Your task to perform on an android device: Open Youtube and go to the subscriptions tab Image 0: 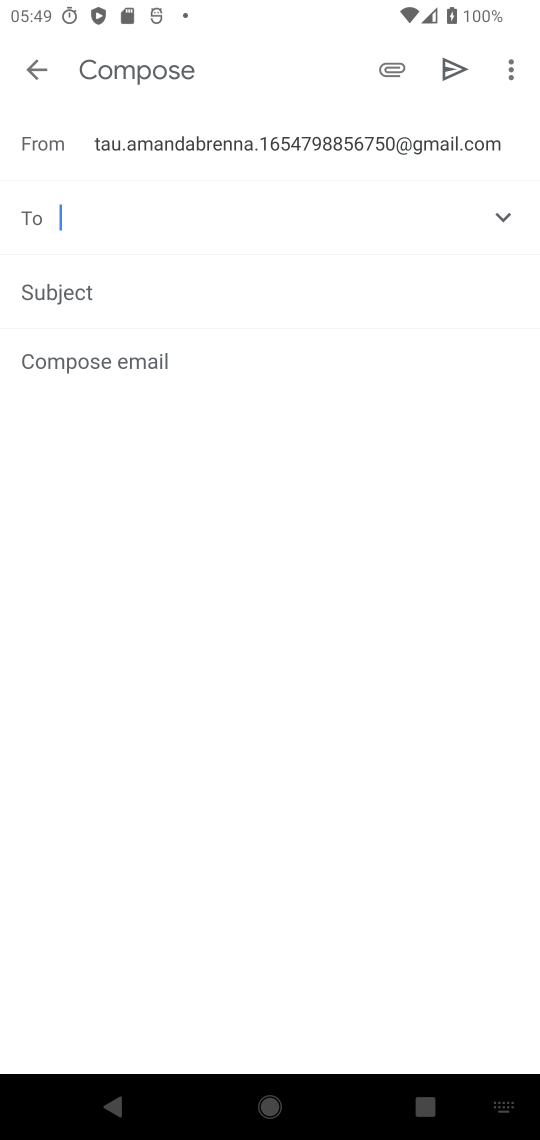
Step 0: press home button
Your task to perform on an android device: Open Youtube and go to the subscriptions tab Image 1: 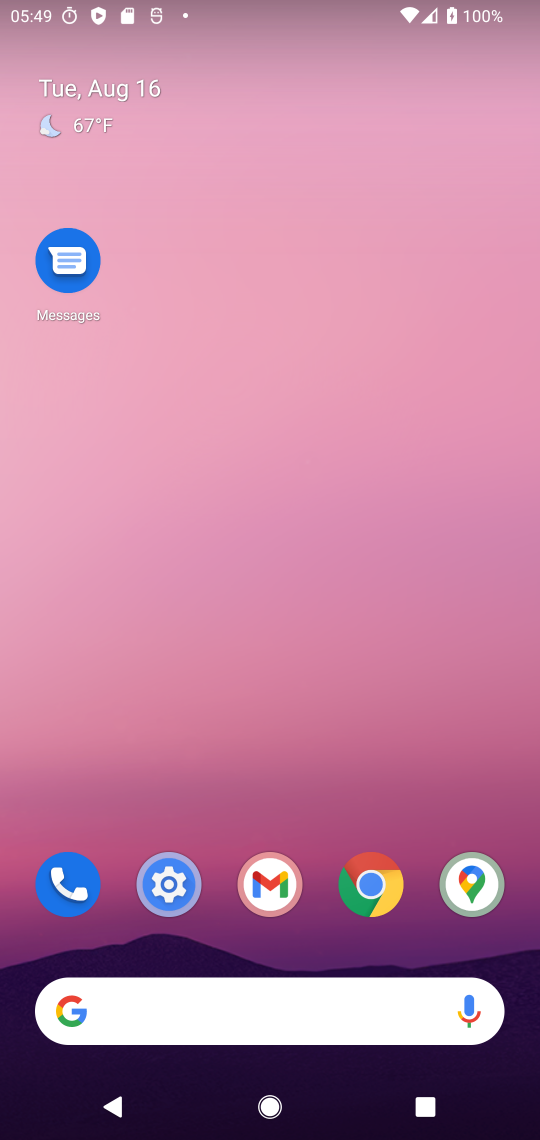
Step 1: drag from (55, 1060) to (290, 434)
Your task to perform on an android device: Open Youtube and go to the subscriptions tab Image 2: 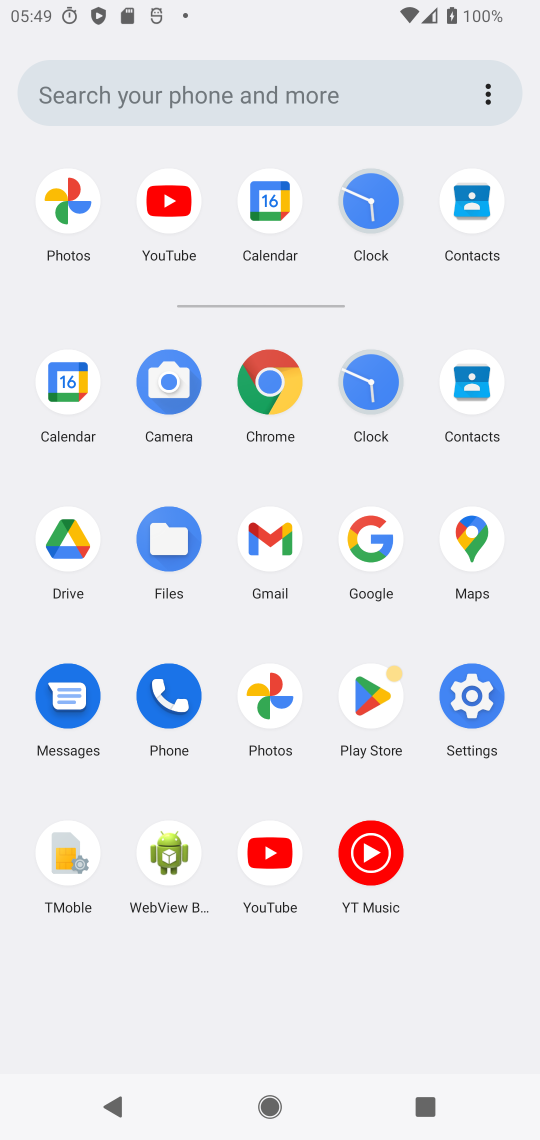
Step 2: click (259, 852)
Your task to perform on an android device: Open Youtube and go to the subscriptions tab Image 3: 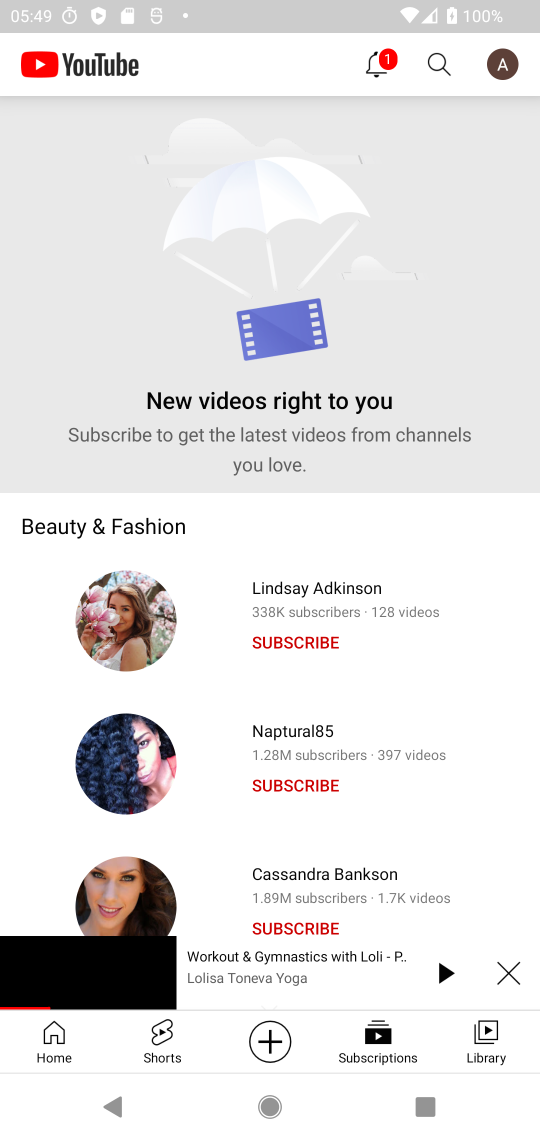
Step 3: click (358, 1044)
Your task to perform on an android device: Open Youtube and go to the subscriptions tab Image 4: 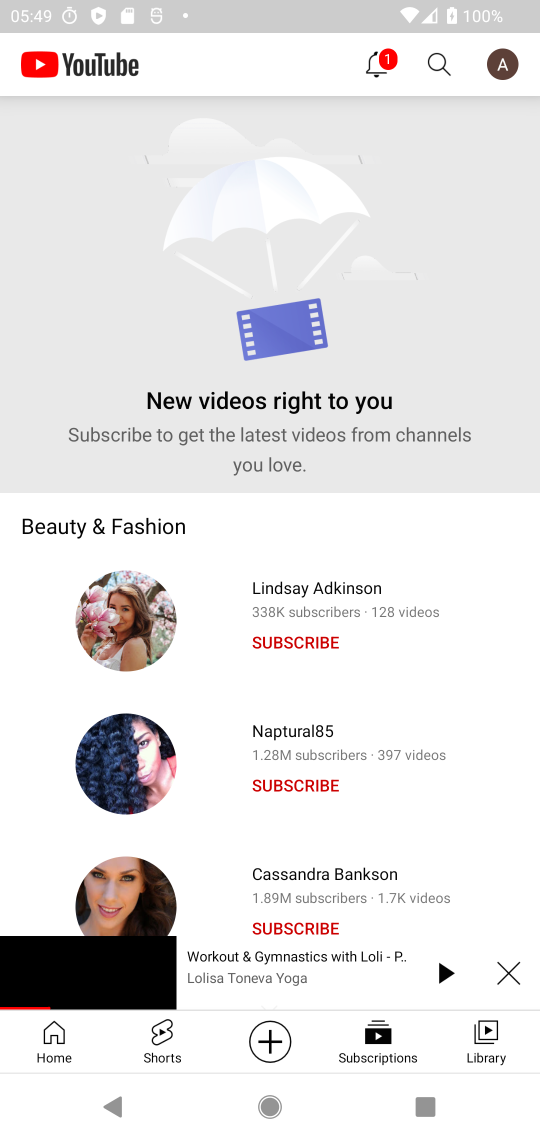
Step 4: click (508, 978)
Your task to perform on an android device: Open Youtube and go to the subscriptions tab Image 5: 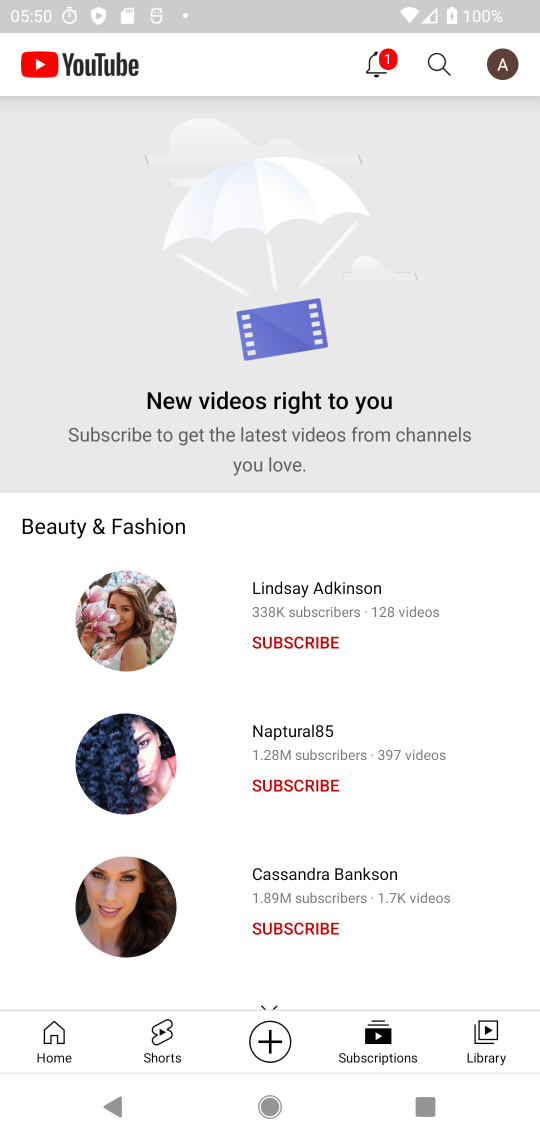
Step 5: task complete